Your task to perform on an android device: clear all cookies in the chrome app Image 0: 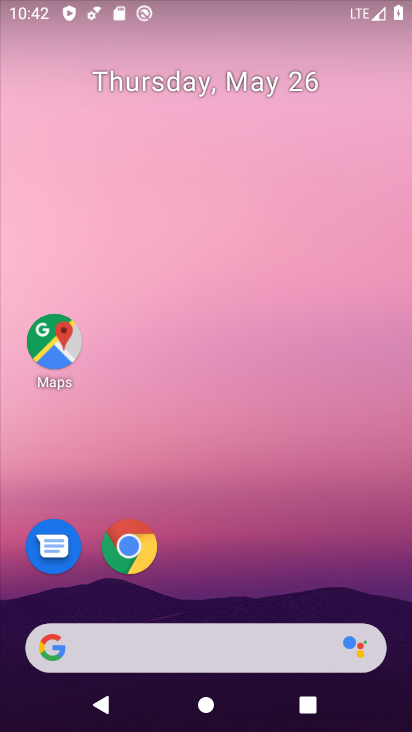
Step 0: click (136, 544)
Your task to perform on an android device: clear all cookies in the chrome app Image 1: 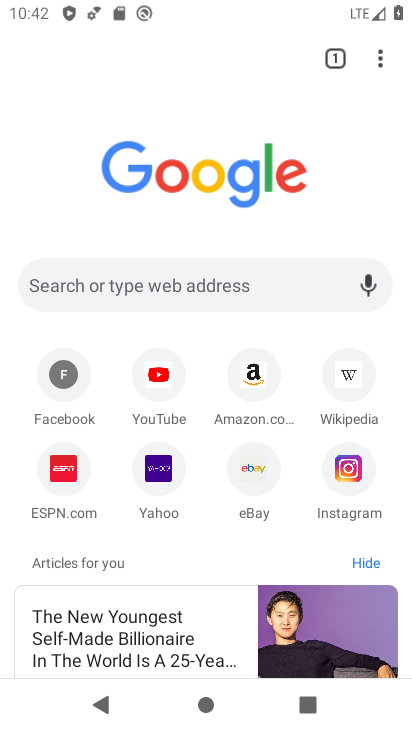
Step 1: click (375, 58)
Your task to perform on an android device: clear all cookies in the chrome app Image 2: 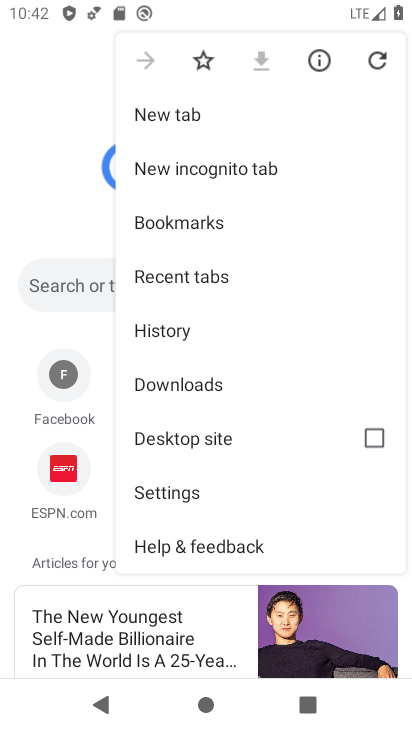
Step 2: click (176, 481)
Your task to perform on an android device: clear all cookies in the chrome app Image 3: 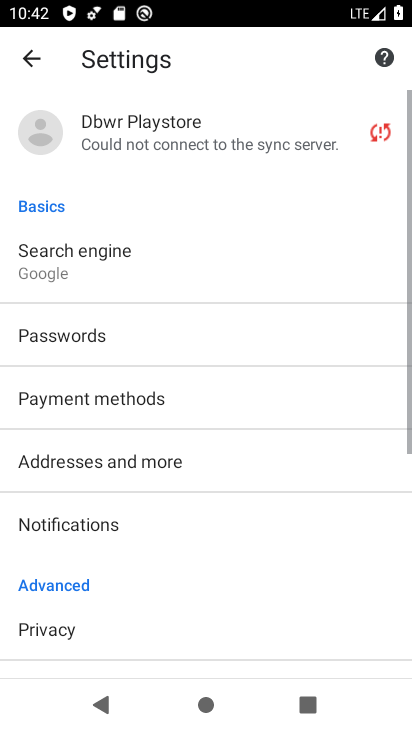
Step 3: drag from (208, 585) to (191, 150)
Your task to perform on an android device: clear all cookies in the chrome app Image 4: 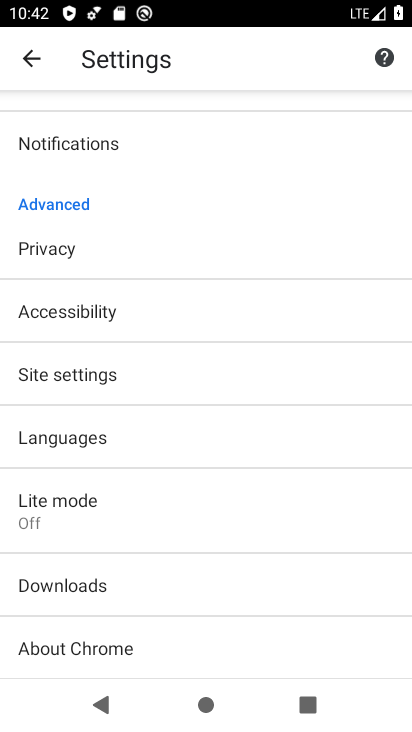
Step 4: click (55, 373)
Your task to perform on an android device: clear all cookies in the chrome app Image 5: 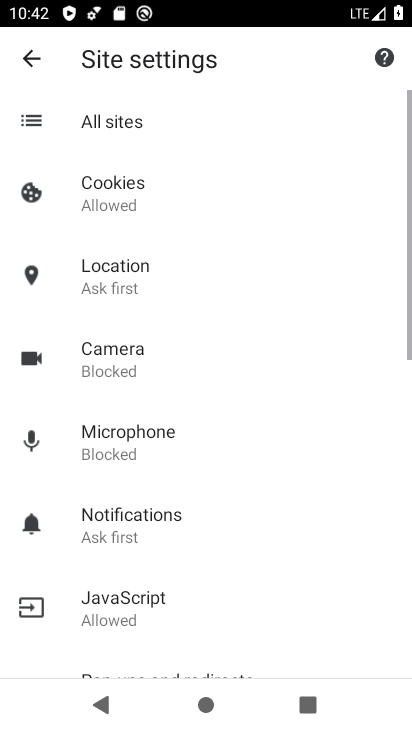
Step 5: click (143, 178)
Your task to perform on an android device: clear all cookies in the chrome app Image 6: 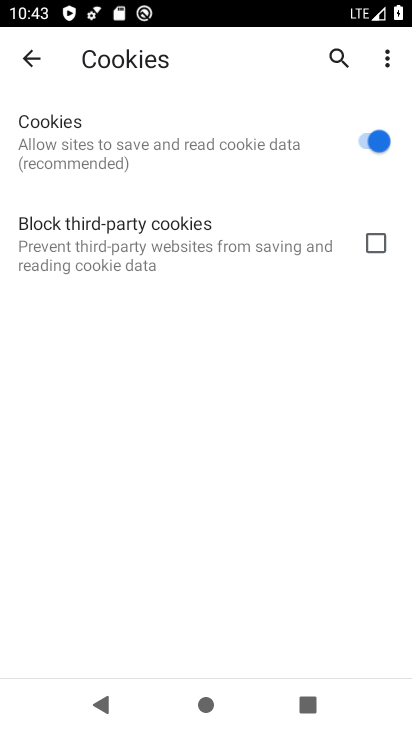
Step 6: task complete